Your task to perform on an android device: Open settings on Google Maps Image 0: 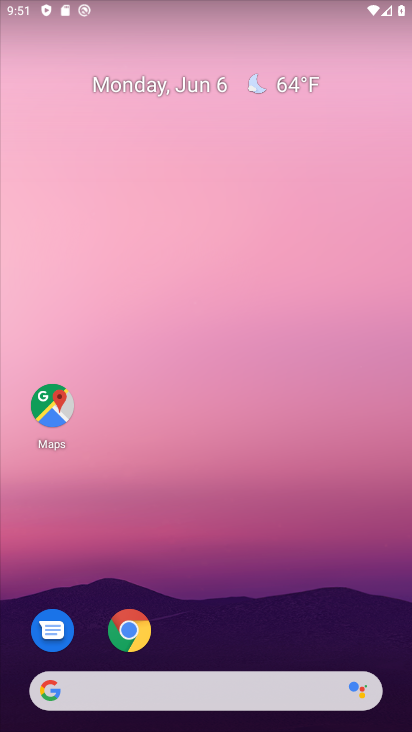
Step 0: click (48, 404)
Your task to perform on an android device: Open settings on Google Maps Image 1: 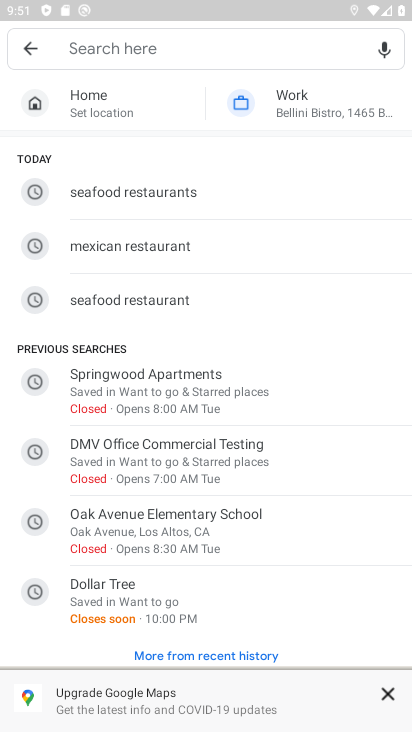
Step 1: click (25, 51)
Your task to perform on an android device: Open settings on Google Maps Image 2: 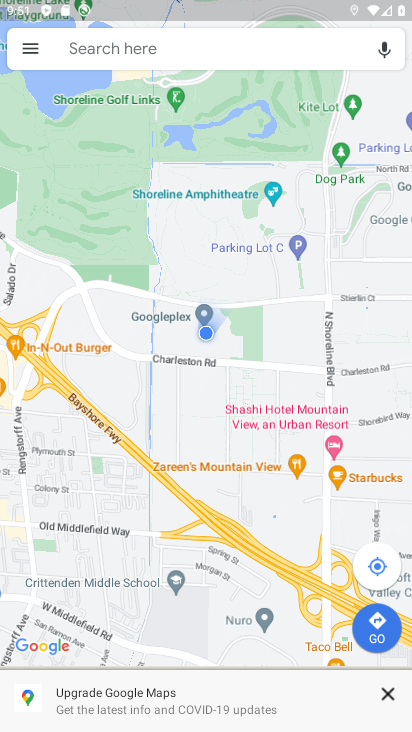
Step 2: click (36, 54)
Your task to perform on an android device: Open settings on Google Maps Image 3: 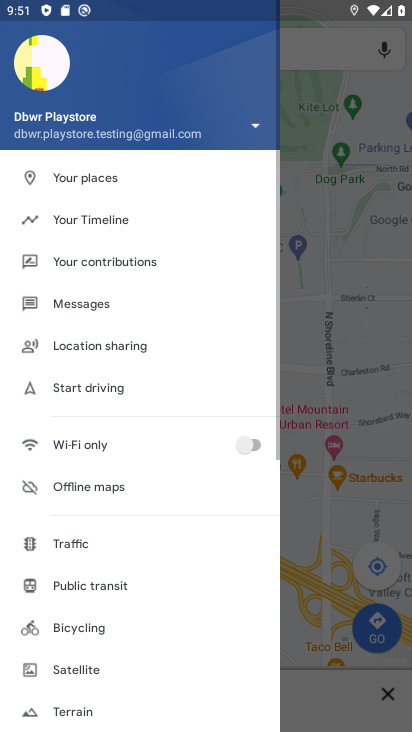
Step 3: drag from (101, 708) to (134, 388)
Your task to perform on an android device: Open settings on Google Maps Image 4: 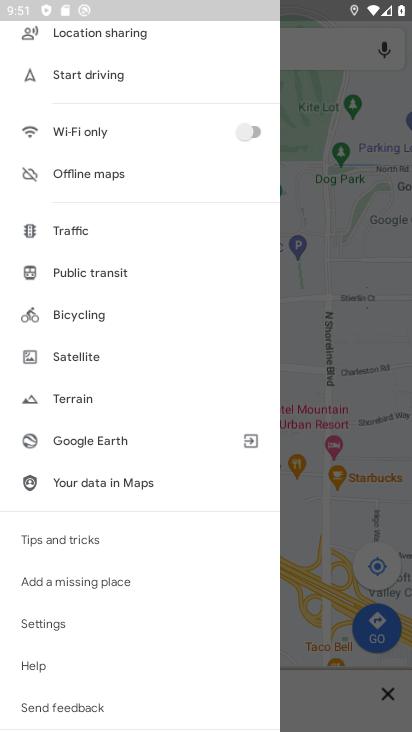
Step 4: click (55, 631)
Your task to perform on an android device: Open settings on Google Maps Image 5: 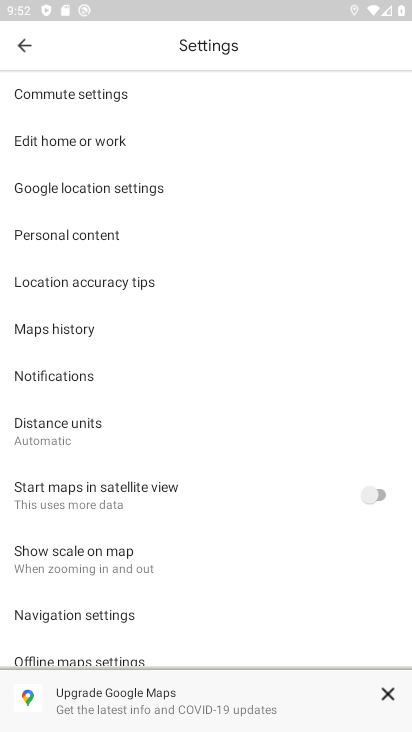
Step 5: task complete